Your task to perform on an android device: Open accessibility settings Image 0: 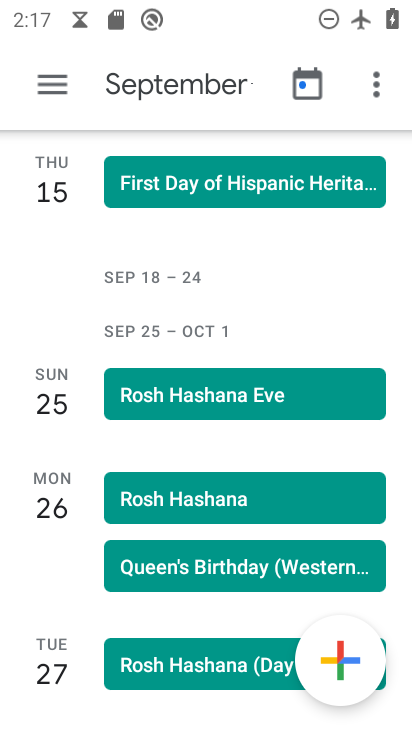
Step 0: press home button
Your task to perform on an android device: Open accessibility settings Image 1: 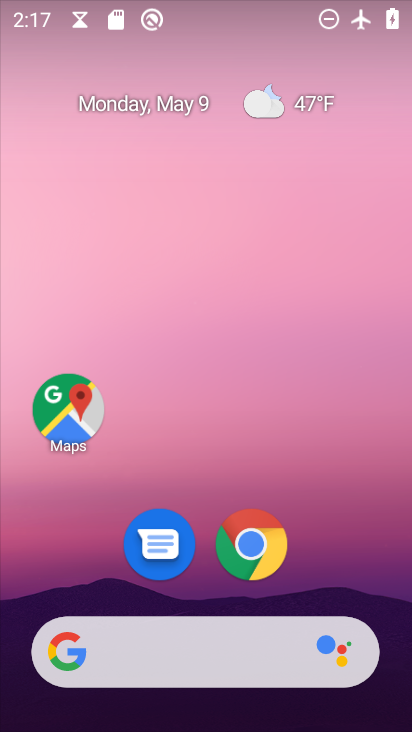
Step 1: drag from (353, 535) to (313, 47)
Your task to perform on an android device: Open accessibility settings Image 2: 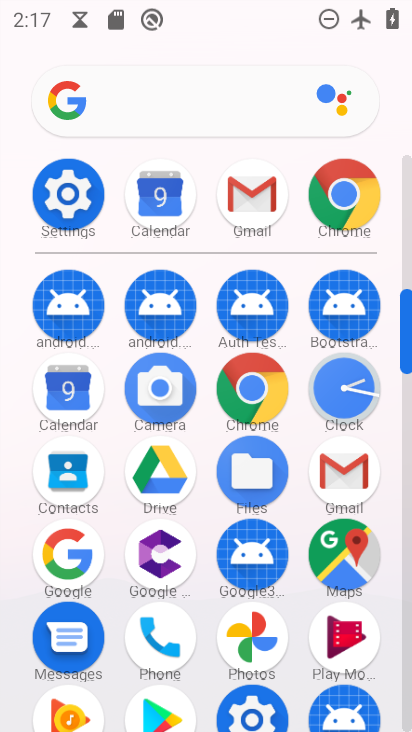
Step 2: click (62, 201)
Your task to perform on an android device: Open accessibility settings Image 3: 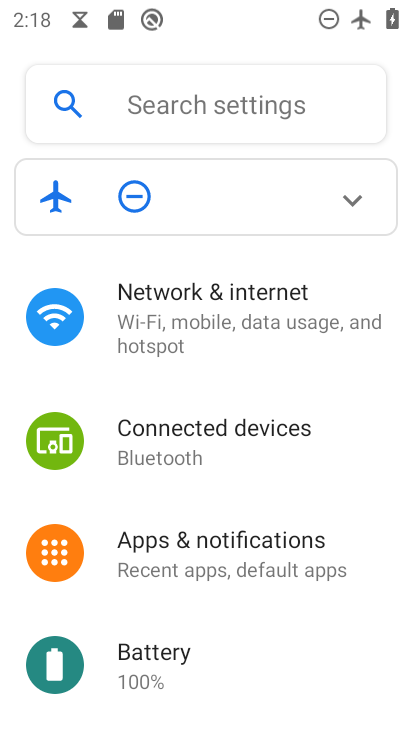
Step 3: drag from (222, 595) to (261, 321)
Your task to perform on an android device: Open accessibility settings Image 4: 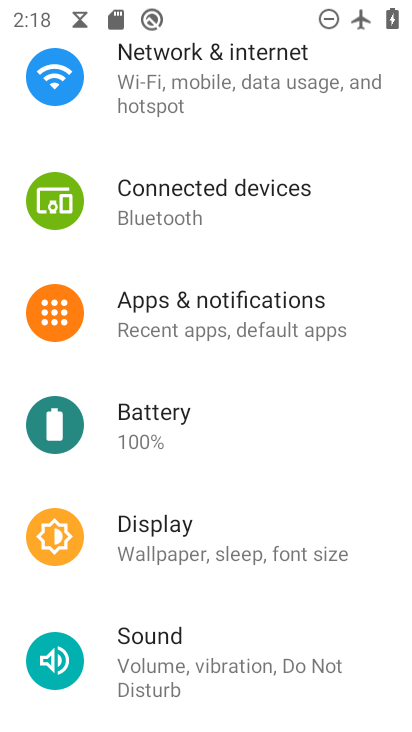
Step 4: drag from (280, 629) to (299, 375)
Your task to perform on an android device: Open accessibility settings Image 5: 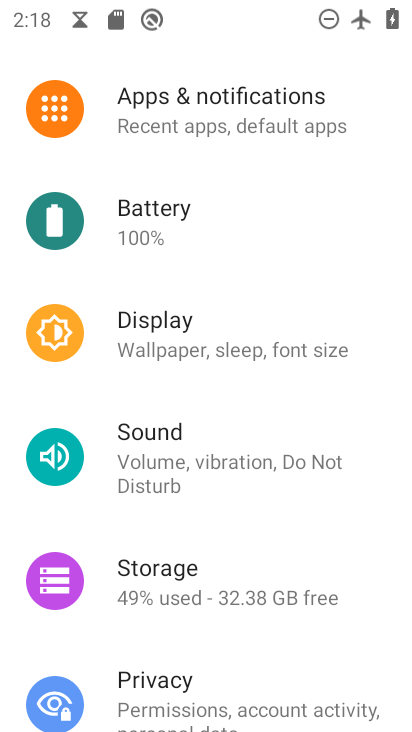
Step 5: drag from (289, 671) to (338, 394)
Your task to perform on an android device: Open accessibility settings Image 6: 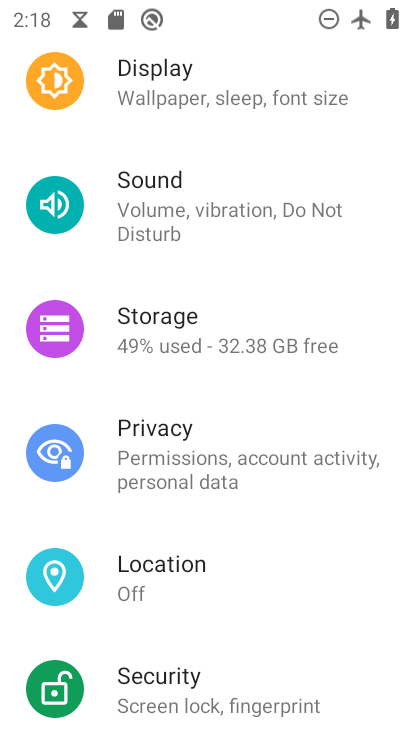
Step 6: drag from (299, 648) to (319, 349)
Your task to perform on an android device: Open accessibility settings Image 7: 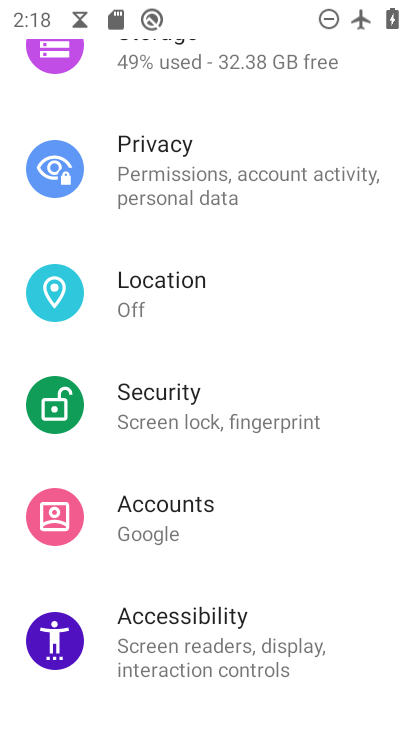
Step 7: click (228, 646)
Your task to perform on an android device: Open accessibility settings Image 8: 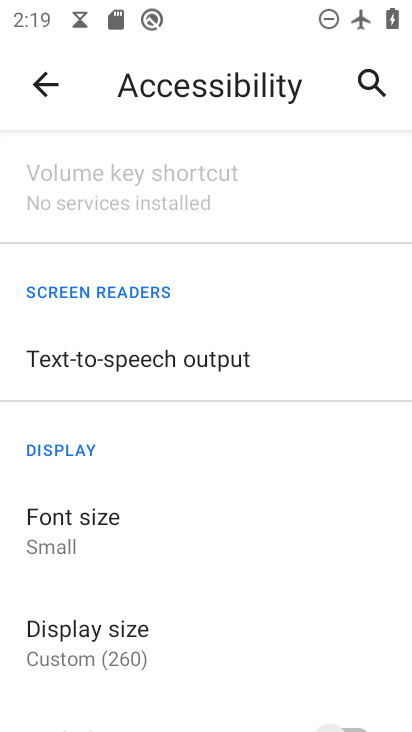
Step 8: task complete